Your task to perform on an android device: turn off translation in the chrome app Image 0: 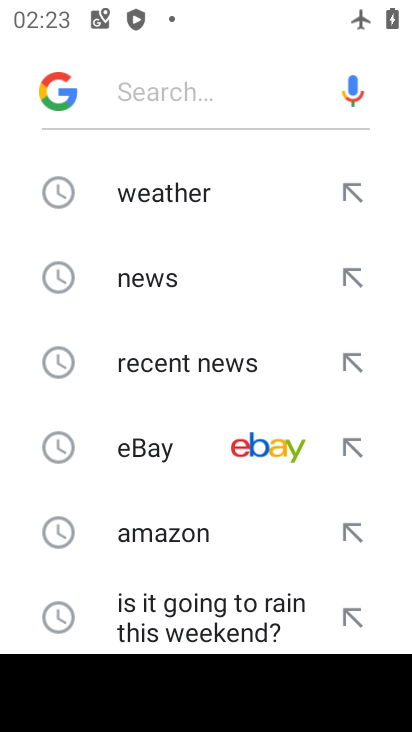
Step 0: press home button
Your task to perform on an android device: turn off translation in the chrome app Image 1: 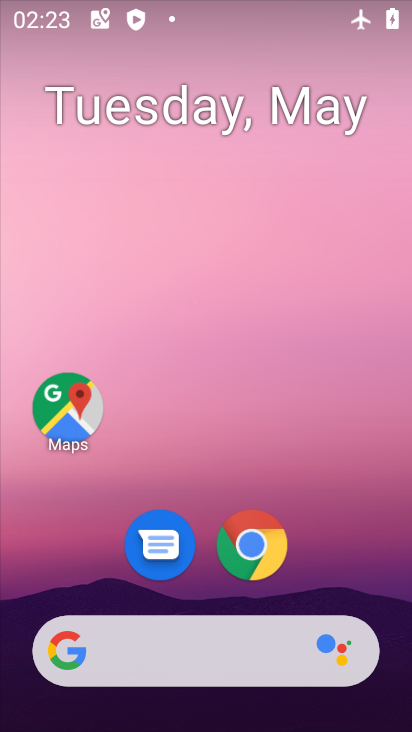
Step 1: click (254, 542)
Your task to perform on an android device: turn off translation in the chrome app Image 2: 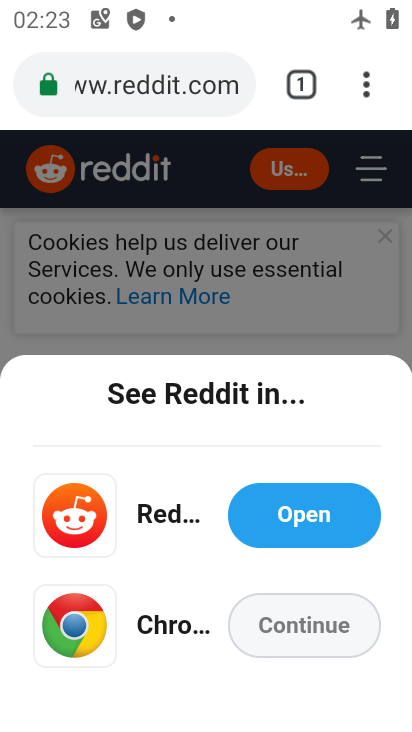
Step 2: click (360, 86)
Your task to perform on an android device: turn off translation in the chrome app Image 3: 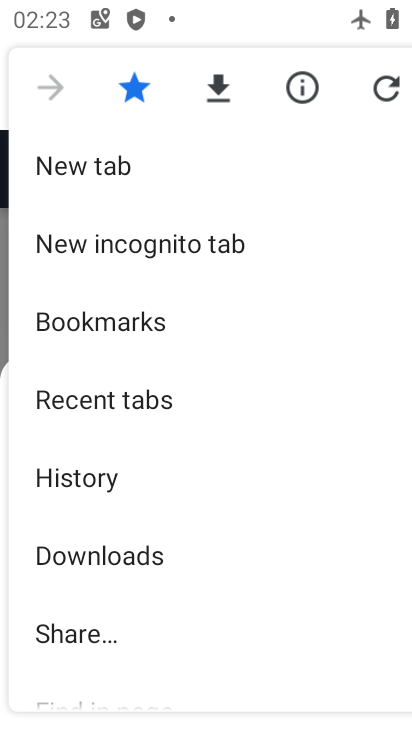
Step 3: drag from (208, 581) to (255, 125)
Your task to perform on an android device: turn off translation in the chrome app Image 4: 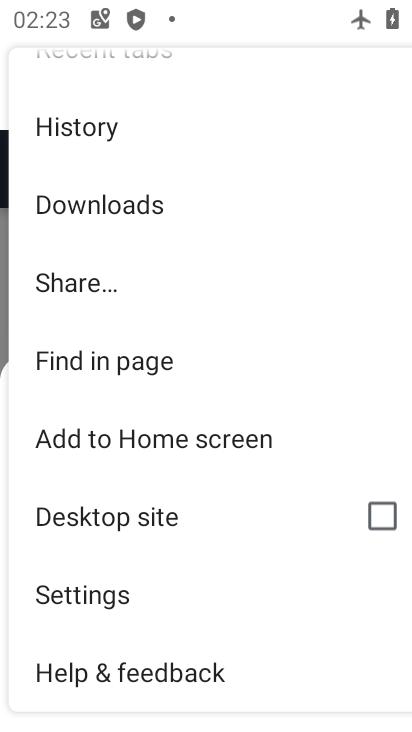
Step 4: click (73, 594)
Your task to perform on an android device: turn off translation in the chrome app Image 5: 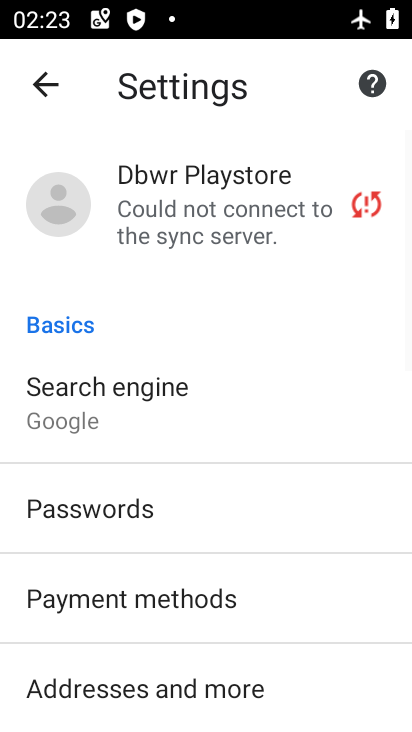
Step 5: drag from (319, 696) to (202, 172)
Your task to perform on an android device: turn off translation in the chrome app Image 6: 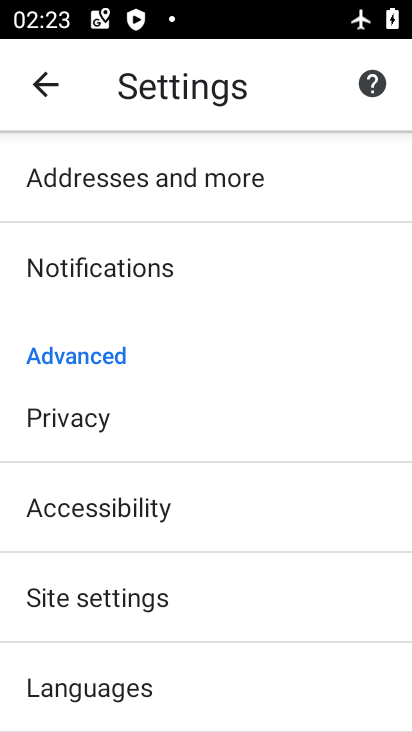
Step 6: drag from (244, 639) to (247, 222)
Your task to perform on an android device: turn off translation in the chrome app Image 7: 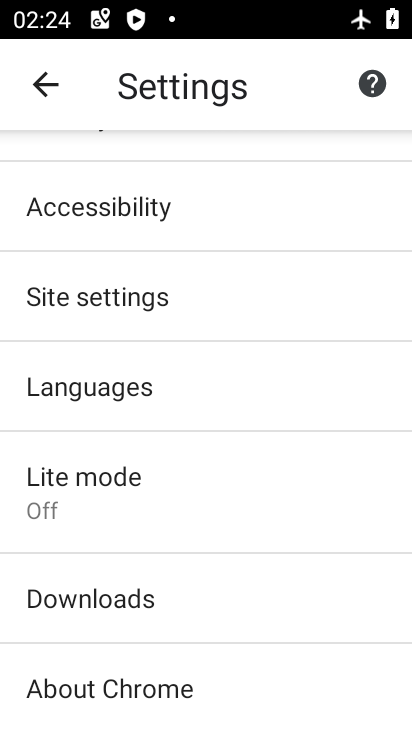
Step 7: click (99, 389)
Your task to perform on an android device: turn off translation in the chrome app Image 8: 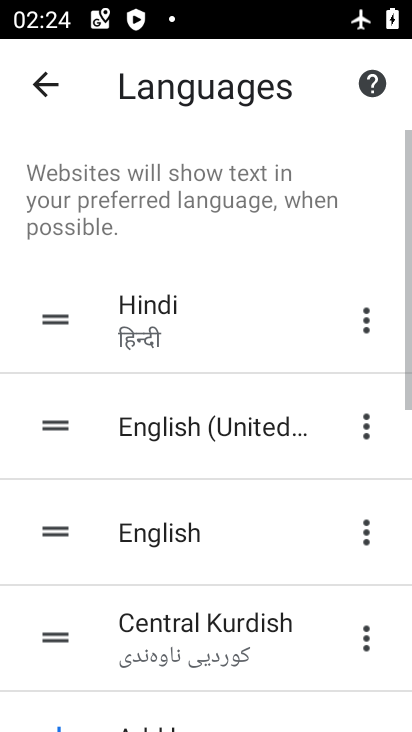
Step 8: task complete